Your task to perform on an android device: choose inbox layout in the gmail app Image 0: 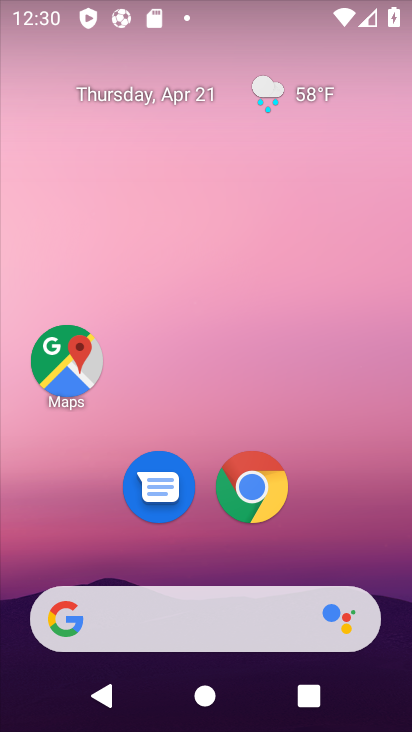
Step 0: drag from (377, 569) to (386, 18)
Your task to perform on an android device: choose inbox layout in the gmail app Image 1: 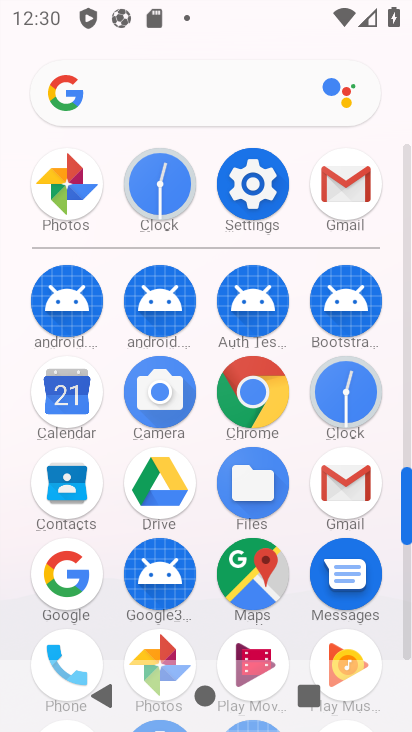
Step 1: click (347, 185)
Your task to perform on an android device: choose inbox layout in the gmail app Image 2: 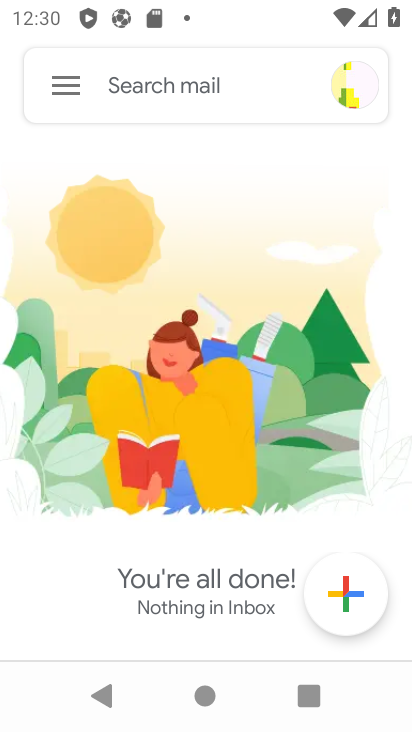
Step 2: click (64, 90)
Your task to perform on an android device: choose inbox layout in the gmail app Image 3: 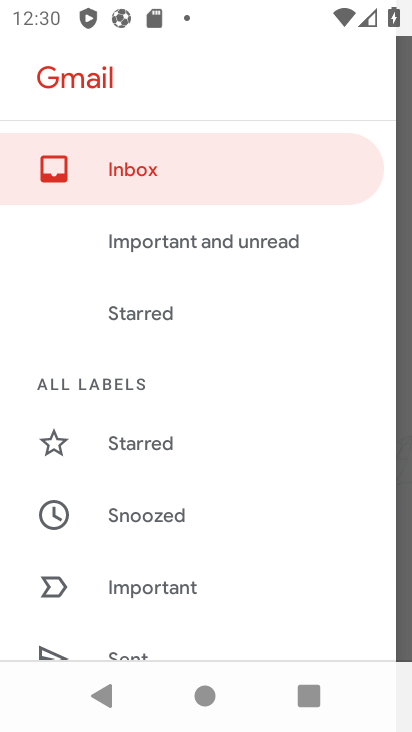
Step 3: drag from (206, 585) to (403, 167)
Your task to perform on an android device: choose inbox layout in the gmail app Image 4: 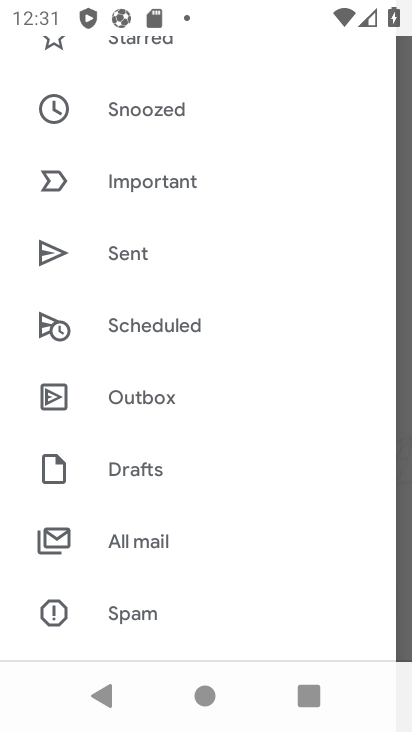
Step 4: drag from (295, 602) to (349, 158)
Your task to perform on an android device: choose inbox layout in the gmail app Image 5: 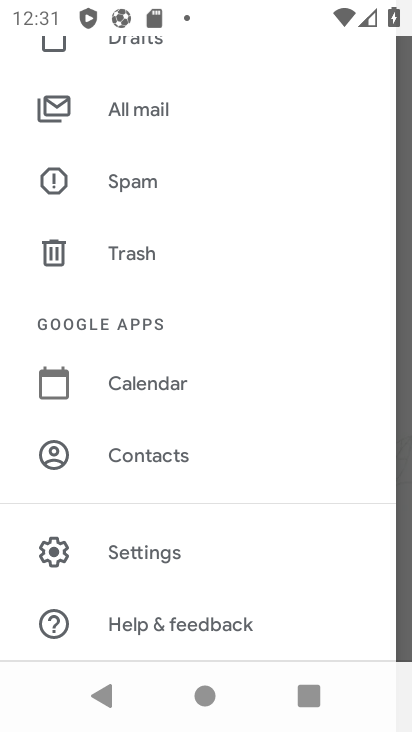
Step 5: click (128, 546)
Your task to perform on an android device: choose inbox layout in the gmail app Image 6: 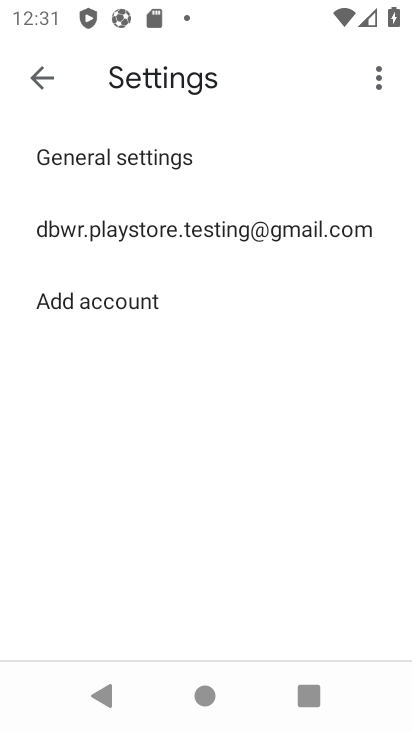
Step 6: click (181, 232)
Your task to perform on an android device: choose inbox layout in the gmail app Image 7: 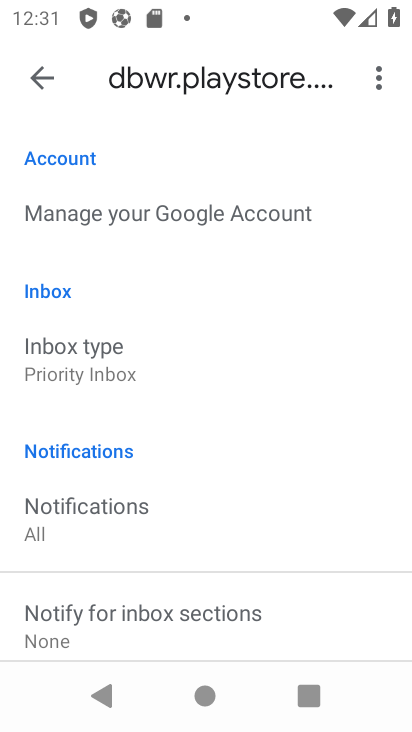
Step 7: click (85, 377)
Your task to perform on an android device: choose inbox layout in the gmail app Image 8: 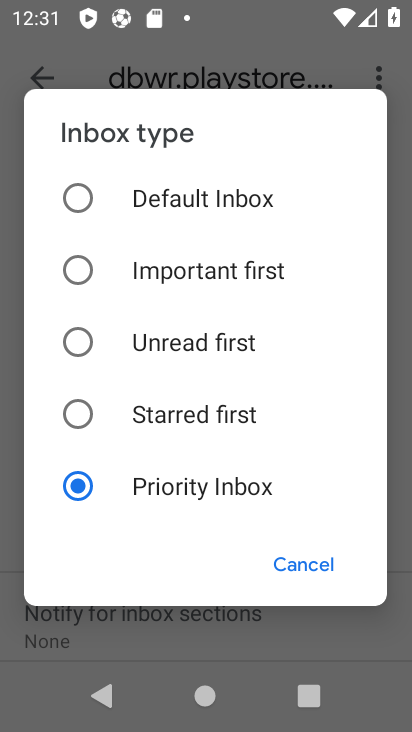
Step 8: click (70, 416)
Your task to perform on an android device: choose inbox layout in the gmail app Image 9: 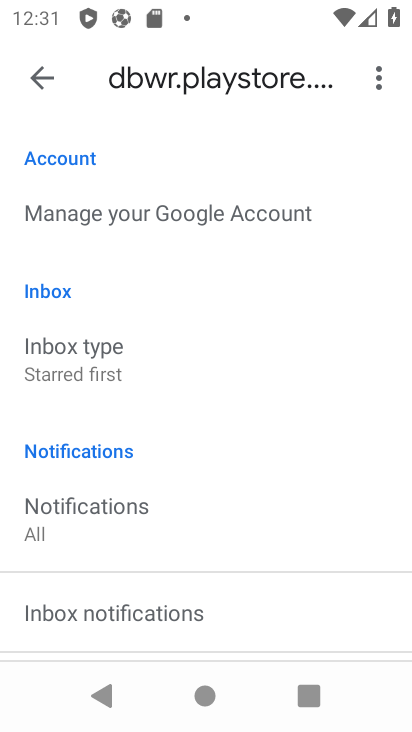
Step 9: task complete